Your task to perform on an android device: turn on showing notifications on the lock screen Image 0: 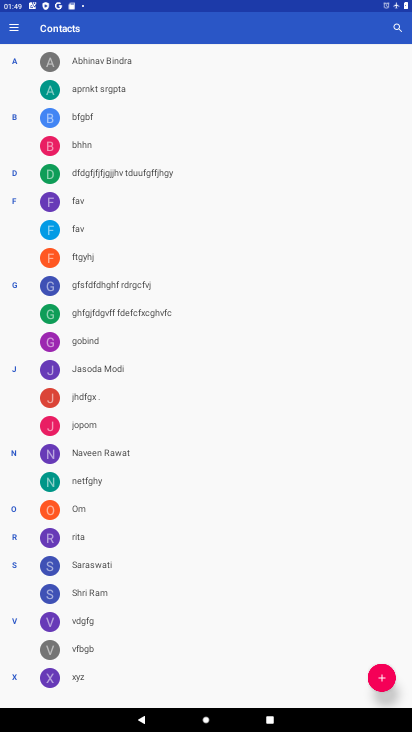
Step 0: press home button
Your task to perform on an android device: turn on showing notifications on the lock screen Image 1: 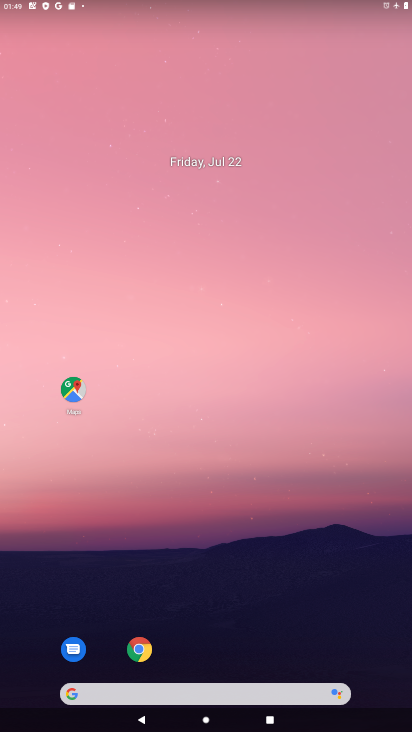
Step 1: drag from (336, 605) to (294, 114)
Your task to perform on an android device: turn on showing notifications on the lock screen Image 2: 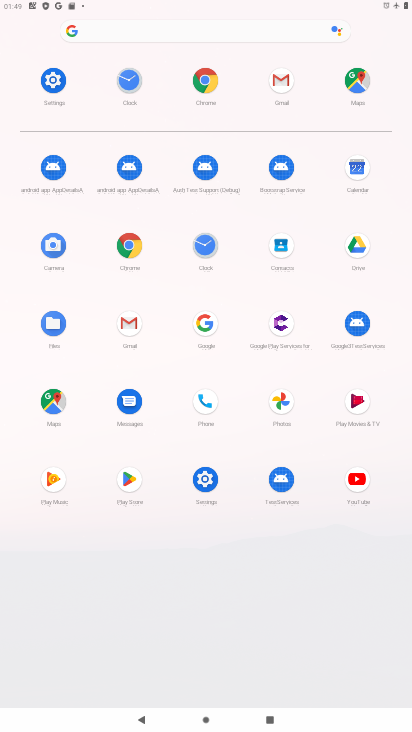
Step 2: click (47, 79)
Your task to perform on an android device: turn on showing notifications on the lock screen Image 3: 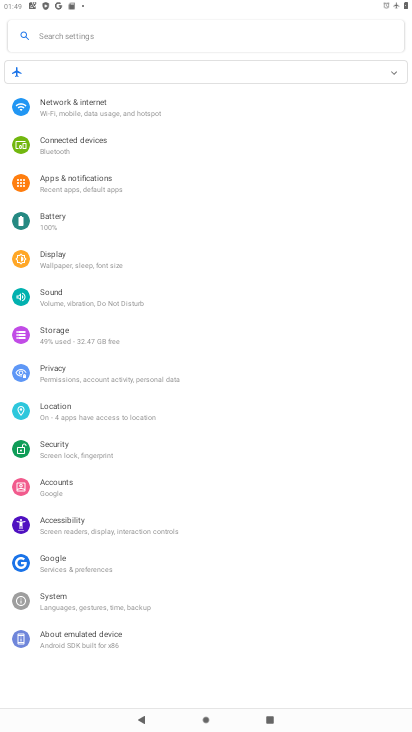
Step 3: click (104, 185)
Your task to perform on an android device: turn on showing notifications on the lock screen Image 4: 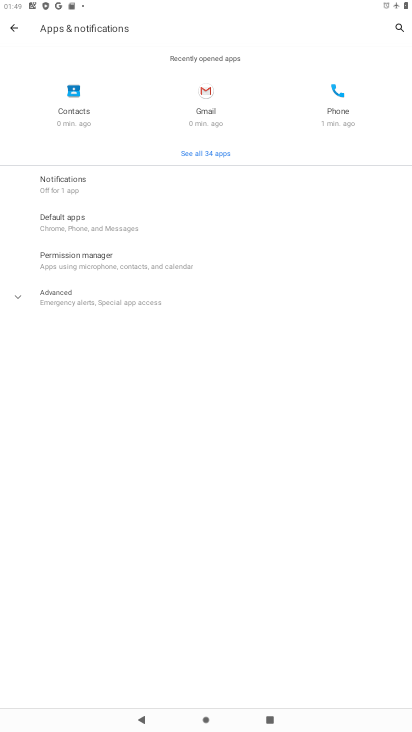
Step 4: click (61, 178)
Your task to perform on an android device: turn on showing notifications on the lock screen Image 5: 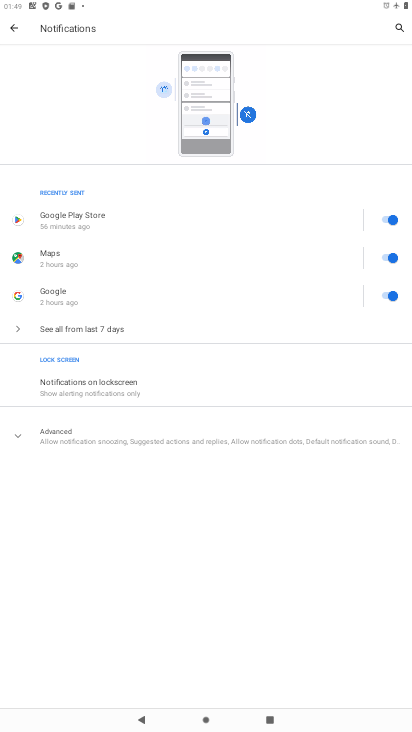
Step 5: click (136, 393)
Your task to perform on an android device: turn on showing notifications on the lock screen Image 6: 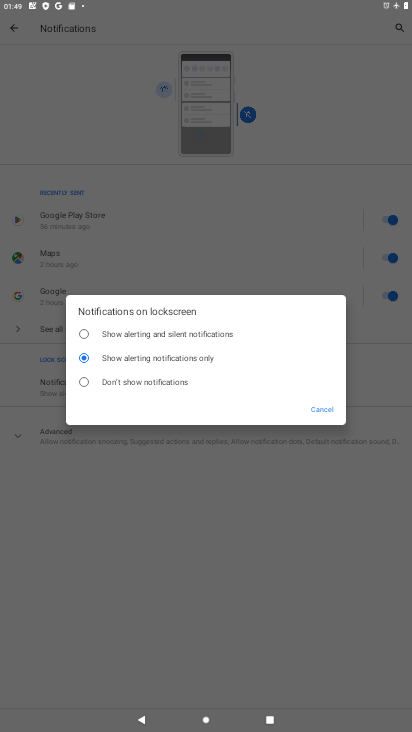
Step 6: task complete